Your task to perform on an android device: find snoozed emails in the gmail app Image 0: 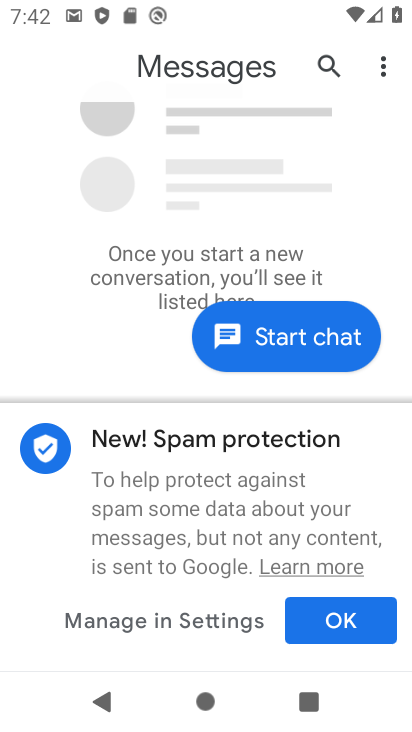
Step 0: press home button
Your task to perform on an android device: find snoozed emails in the gmail app Image 1: 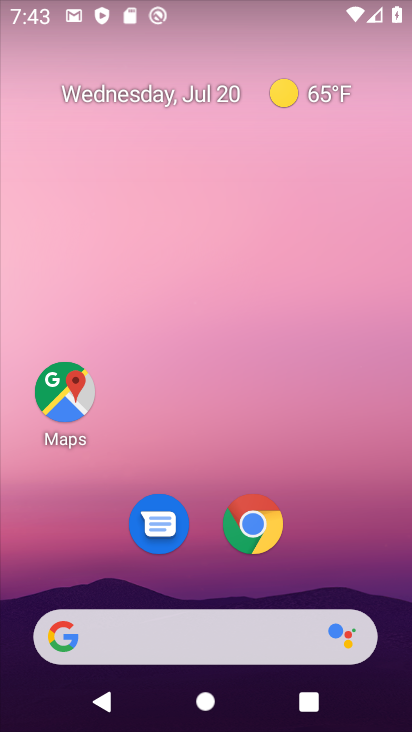
Step 1: drag from (329, 547) to (358, 43)
Your task to perform on an android device: find snoozed emails in the gmail app Image 2: 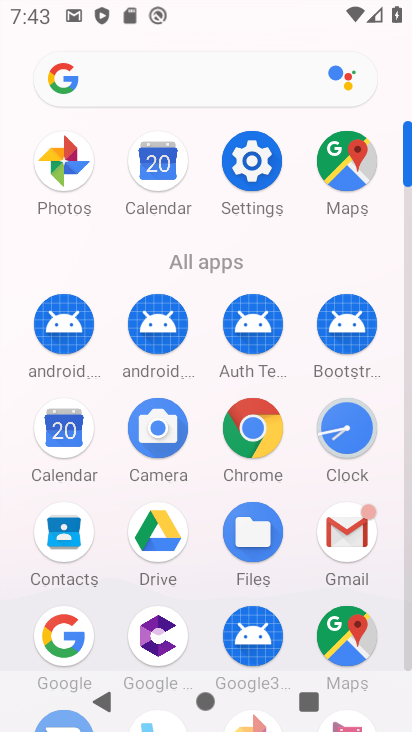
Step 2: click (344, 532)
Your task to perform on an android device: find snoozed emails in the gmail app Image 3: 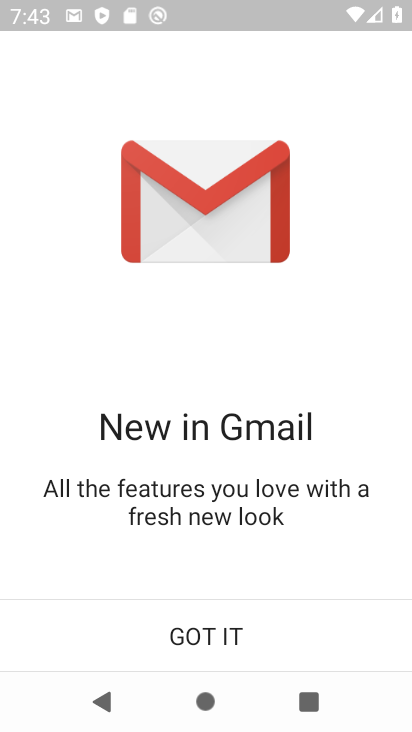
Step 3: click (215, 632)
Your task to perform on an android device: find snoozed emails in the gmail app Image 4: 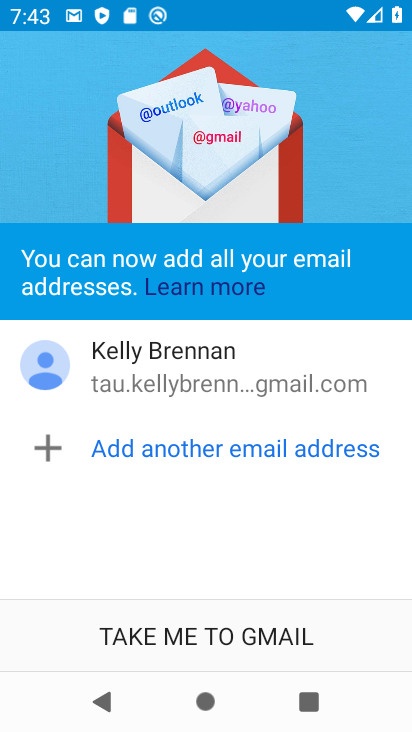
Step 4: click (222, 642)
Your task to perform on an android device: find snoozed emails in the gmail app Image 5: 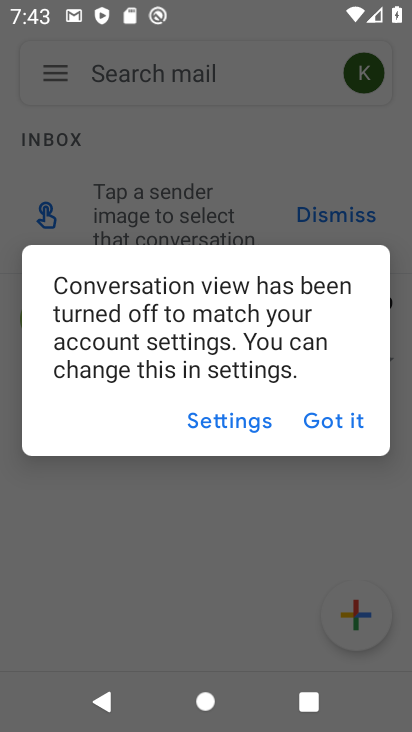
Step 5: click (336, 413)
Your task to perform on an android device: find snoozed emails in the gmail app Image 6: 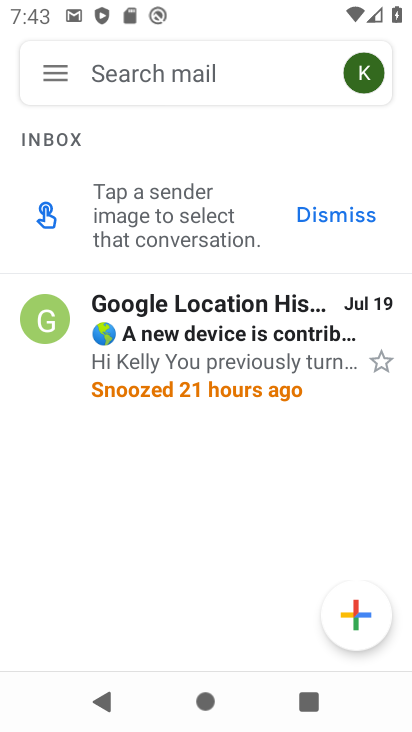
Step 6: click (331, 212)
Your task to perform on an android device: find snoozed emails in the gmail app Image 7: 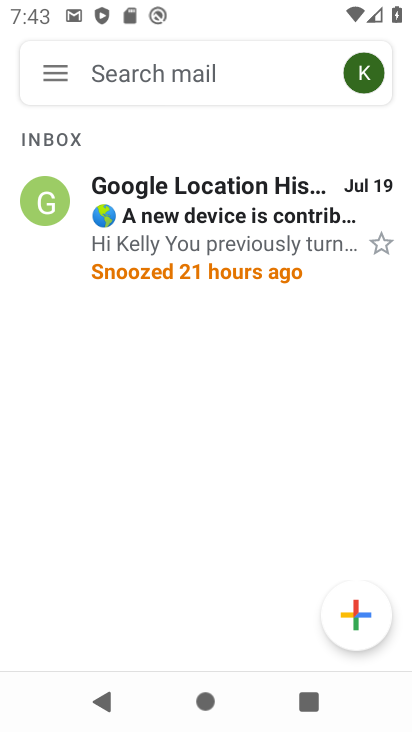
Step 7: click (53, 72)
Your task to perform on an android device: find snoozed emails in the gmail app Image 8: 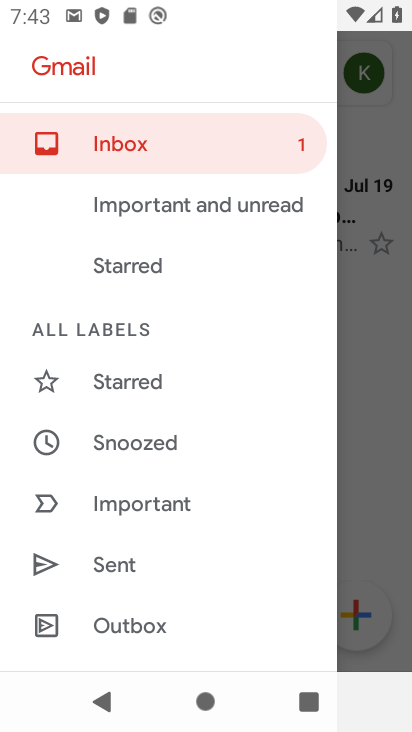
Step 8: click (136, 436)
Your task to perform on an android device: find snoozed emails in the gmail app Image 9: 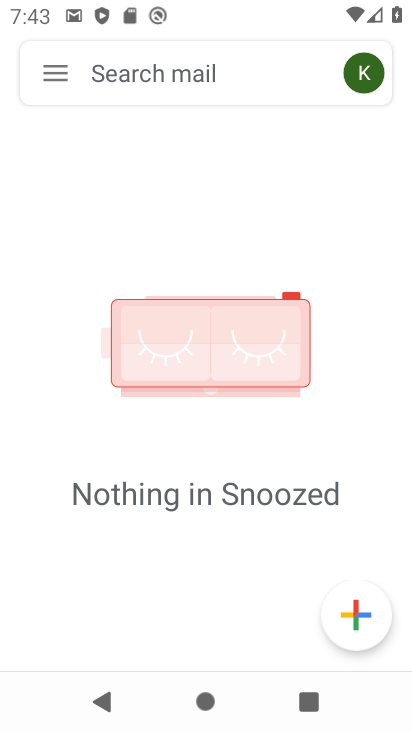
Step 9: click (57, 77)
Your task to perform on an android device: find snoozed emails in the gmail app Image 10: 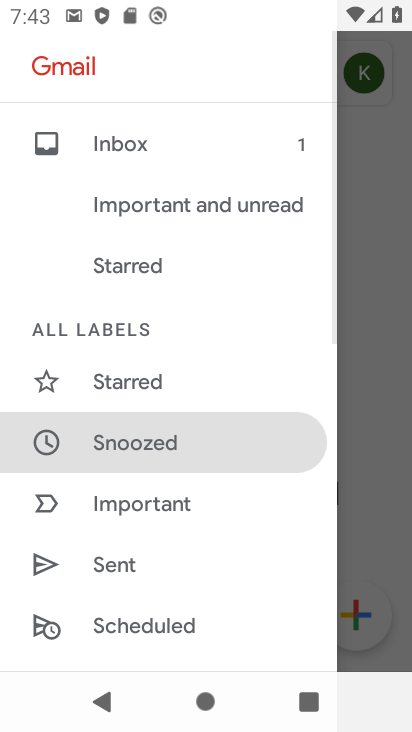
Step 10: click (126, 142)
Your task to perform on an android device: find snoozed emails in the gmail app Image 11: 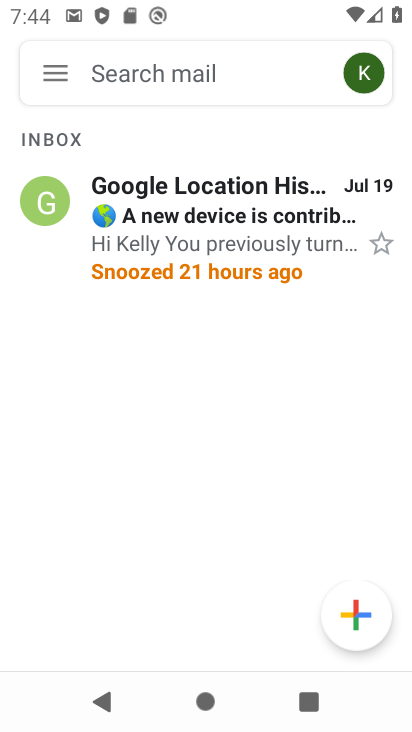
Step 11: task complete